Your task to perform on an android device: Open calendar and show me the fourth week of next month Image 0: 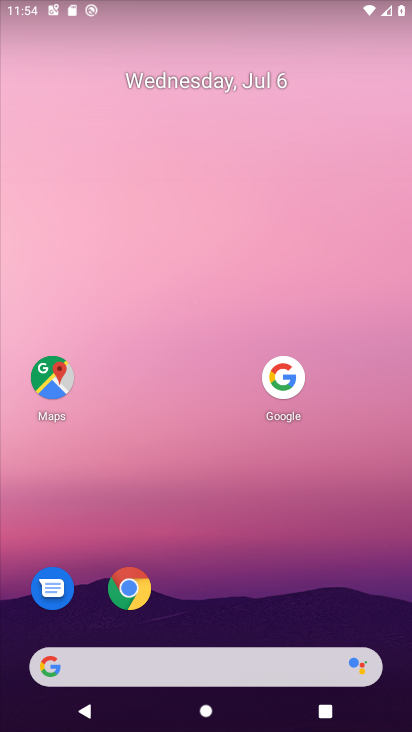
Step 0: drag from (242, 665) to (357, 35)
Your task to perform on an android device: Open calendar and show me the fourth week of next month Image 1: 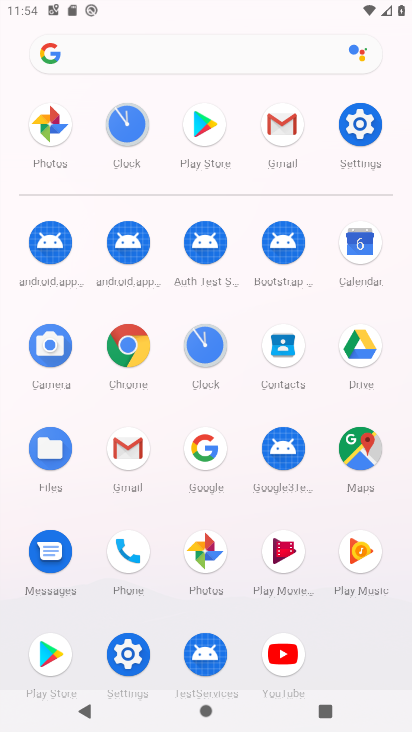
Step 1: click (359, 252)
Your task to perform on an android device: Open calendar and show me the fourth week of next month Image 2: 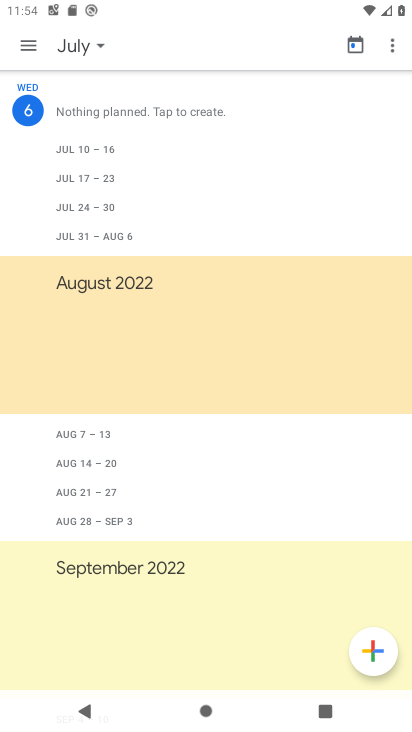
Step 2: click (72, 50)
Your task to perform on an android device: Open calendar and show me the fourth week of next month Image 3: 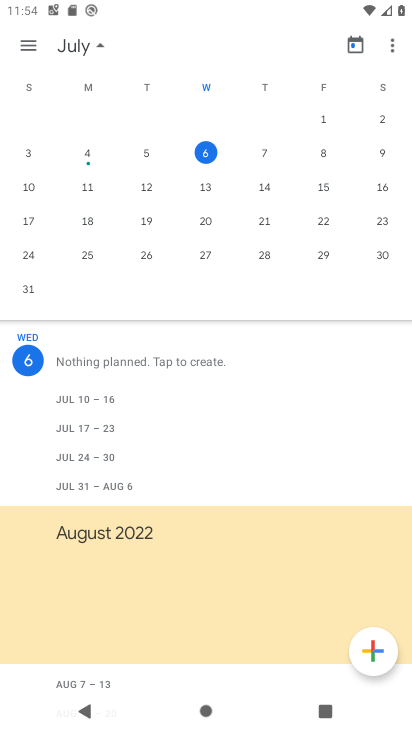
Step 3: drag from (333, 191) to (1, 428)
Your task to perform on an android device: Open calendar and show me the fourth week of next month Image 4: 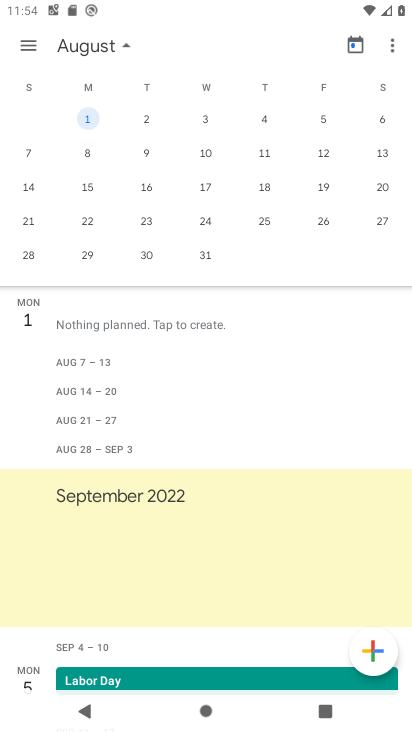
Step 4: click (25, 216)
Your task to perform on an android device: Open calendar and show me the fourth week of next month Image 5: 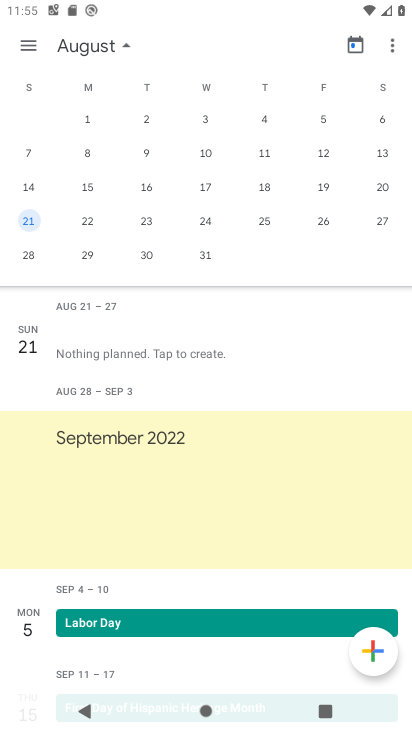
Step 5: click (31, 38)
Your task to perform on an android device: Open calendar and show me the fourth week of next month Image 6: 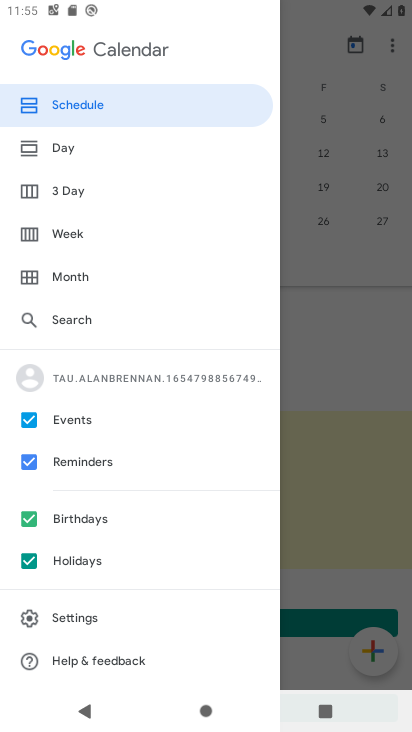
Step 6: click (82, 236)
Your task to perform on an android device: Open calendar and show me the fourth week of next month Image 7: 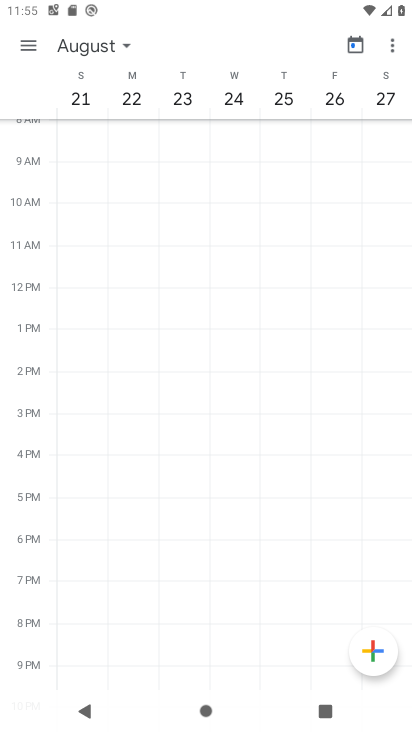
Step 7: task complete